Your task to perform on an android device: Open notification settings Image 0: 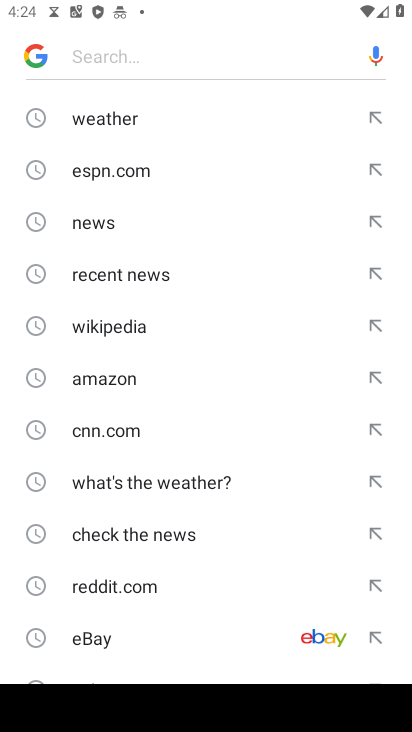
Step 0: press back button
Your task to perform on an android device: Open notification settings Image 1: 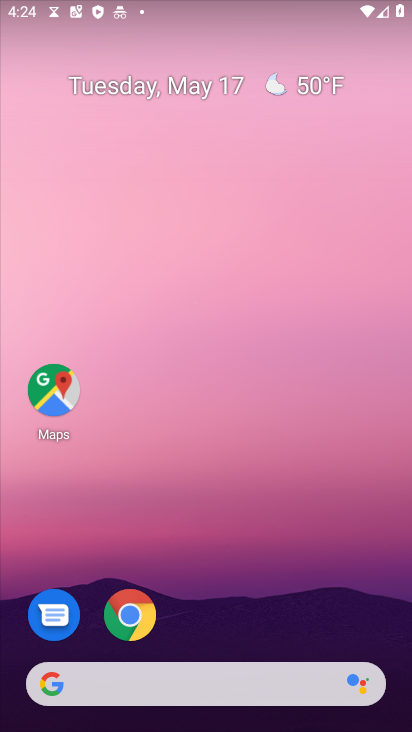
Step 1: drag from (280, 669) to (171, 89)
Your task to perform on an android device: Open notification settings Image 2: 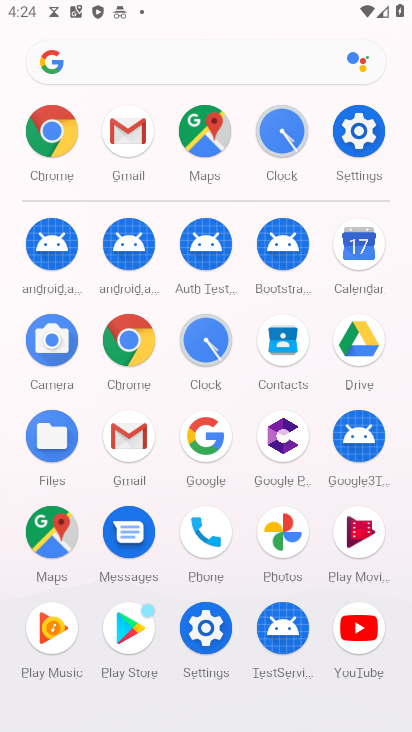
Step 2: click (355, 140)
Your task to perform on an android device: Open notification settings Image 3: 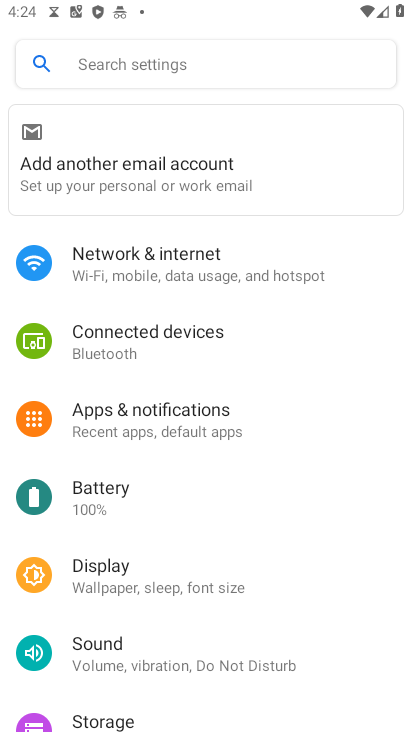
Step 3: click (141, 419)
Your task to perform on an android device: Open notification settings Image 4: 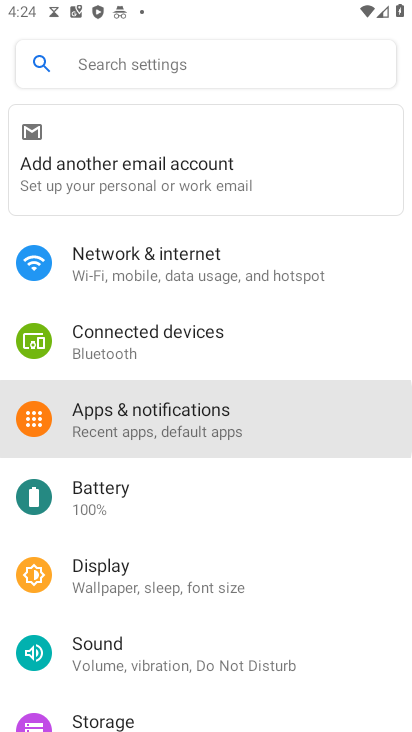
Step 4: click (141, 419)
Your task to perform on an android device: Open notification settings Image 5: 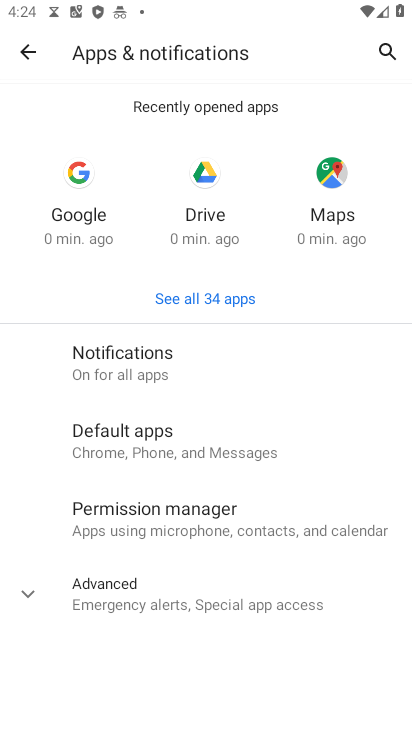
Step 5: click (116, 362)
Your task to perform on an android device: Open notification settings Image 6: 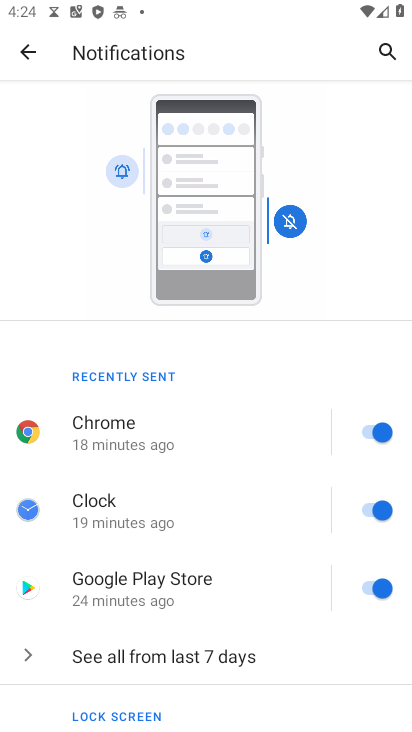
Step 6: drag from (177, 600) to (177, 127)
Your task to perform on an android device: Open notification settings Image 7: 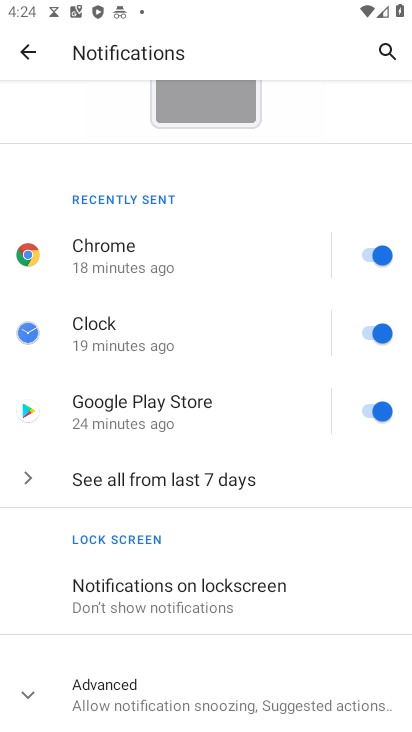
Step 7: drag from (165, 541) to (157, 203)
Your task to perform on an android device: Open notification settings Image 8: 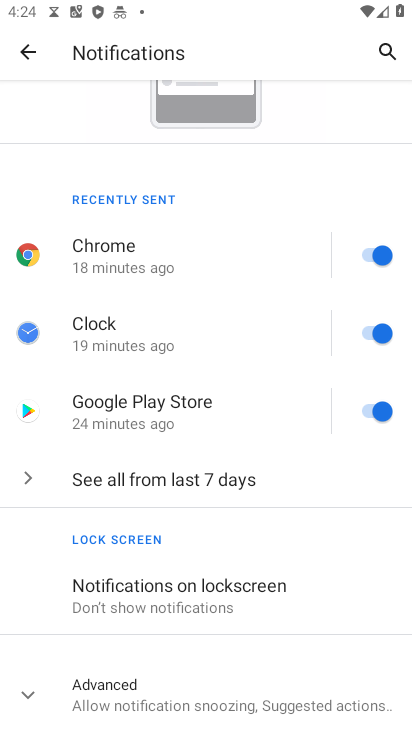
Step 8: click (131, 702)
Your task to perform on an android device: Open notification settings Image 9: 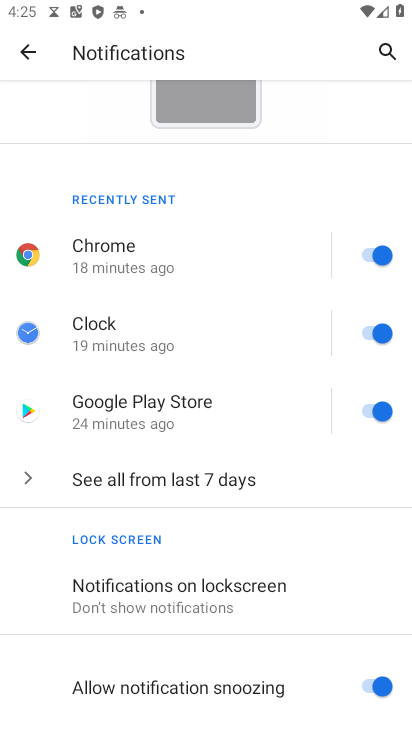
Step 9: task complete